Your task to perform on an android device: turn off location history Image 0: 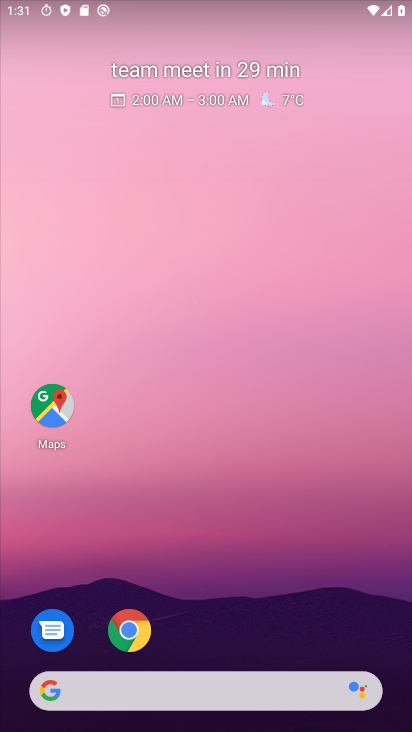
Step 0: drag from (228, 681) to (277, 125)
Your task to perform on an android device: turn off location history Image 1: 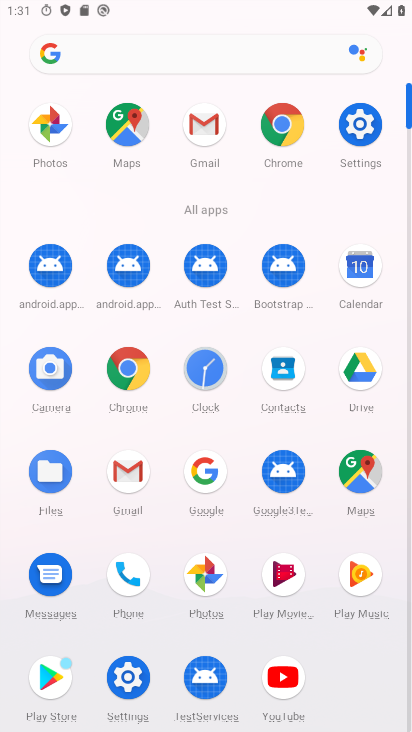
Step 1: click (348, 129)
Your task to perform on an android device: turn off location history Image 2: 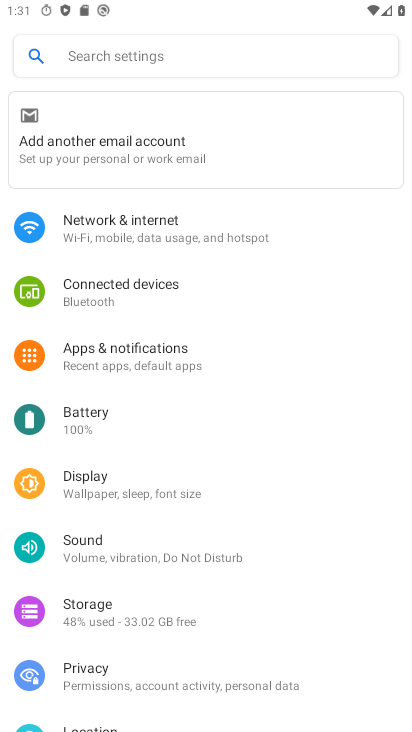
Step 2: drag from (153, 636) to (131, 280)
Your task to perform on an android device: turn off location history Image 3: 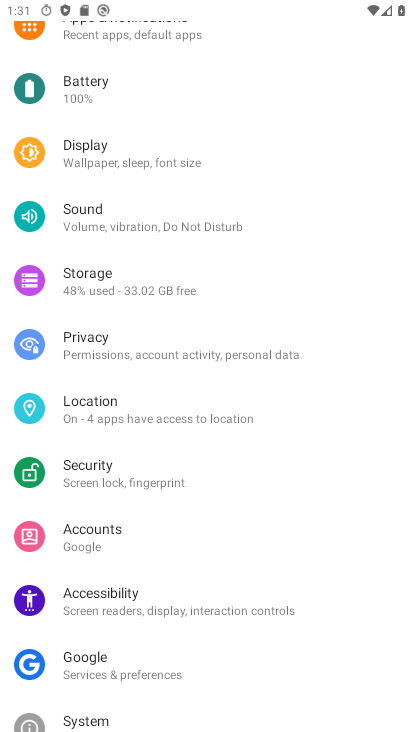
Step 3: click (98, 406)
Your task to perform on an android device: turn off location history Image 4: 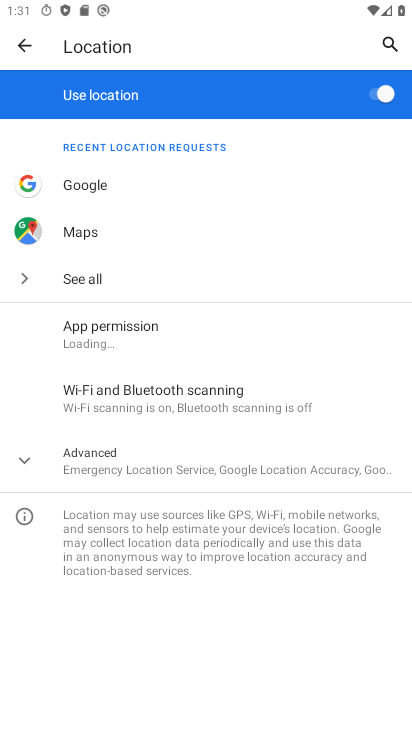
Step 4: click (222, 487)
Your task to perform on an android device: turn off location history Image 5: 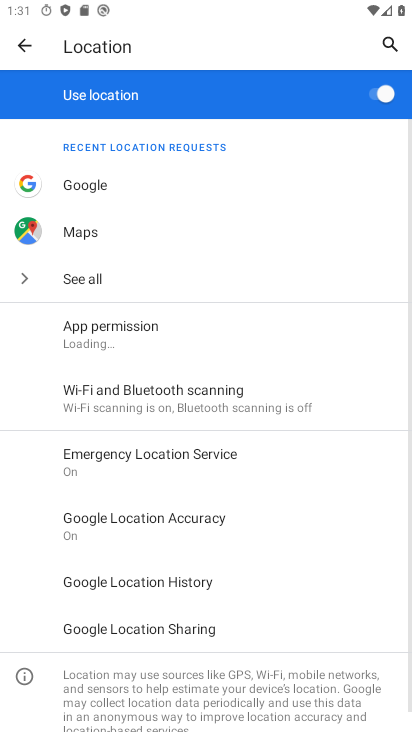
Step 5: click (215, 587)
Your task to perform on an android device: turn off location history Image 6: 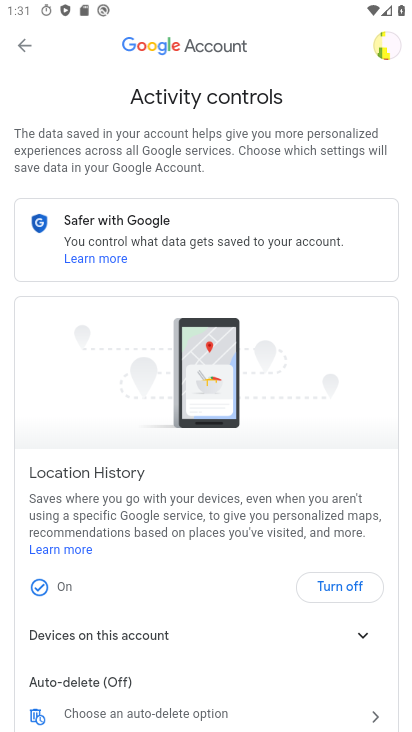
Step 6: click (339, 587)
Your task to perform on an android device: turn off location history Image 7: 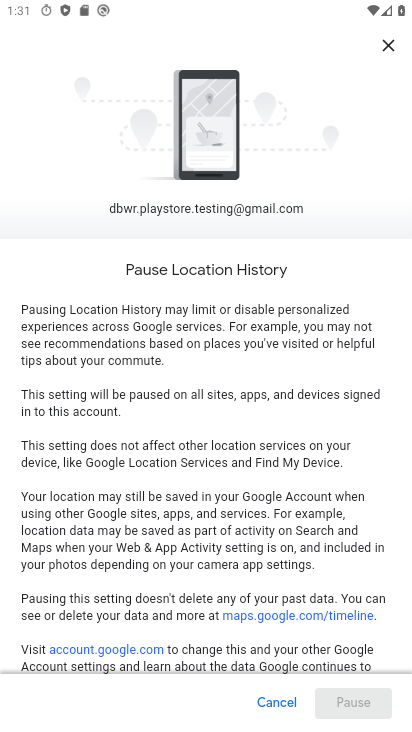
Step 7: drag from (331, 627) to (264, 192)
Your task to perform on an android device: turn off location history Image 8: 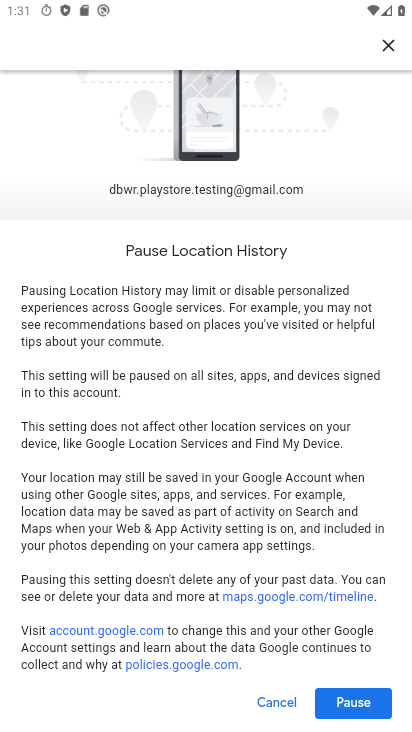
Step 8: click (366, 712)
Your task to perform on an android device: turn off location history Image 9: 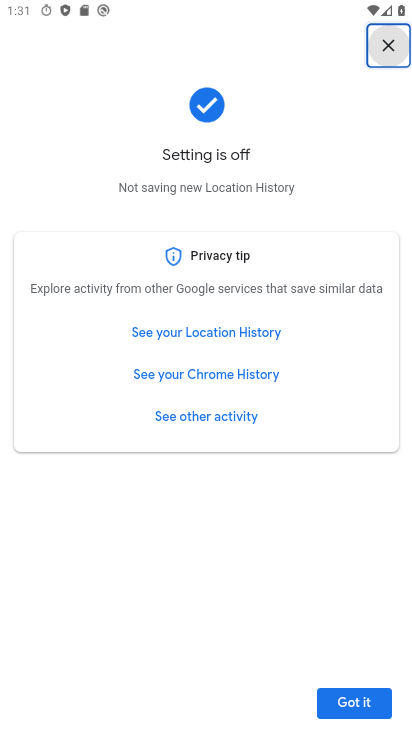
Step 9: click (380, 699)
Your task to perform on an android device: turn off location history Image 10: 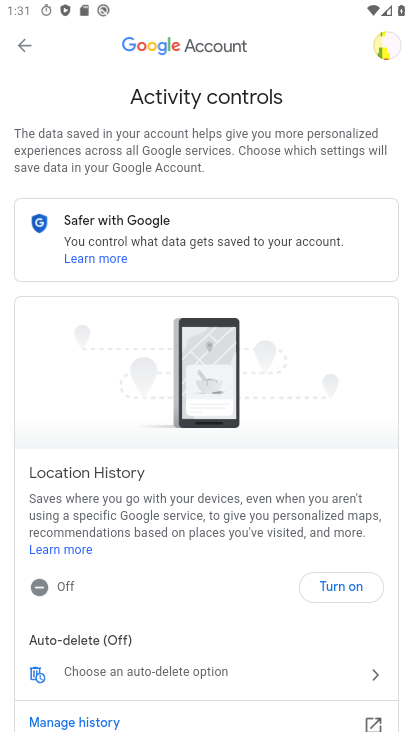
Step 10: task complete